Your task to perform on an android device: Open privacy settings Image 0: 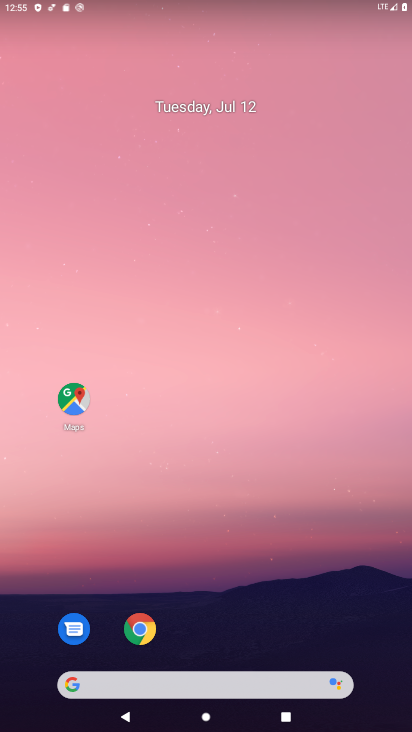
Step 0: drag from (302, 665) to (383, 135)
Your task to perform on an android device: Open privacy settings Image 1: 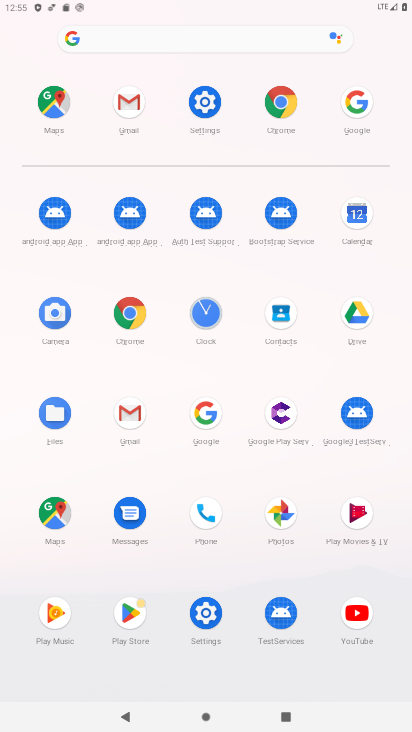
Step 1: click (217, 96)
Your task to perform on an android device: Open privacy settings Image 2: 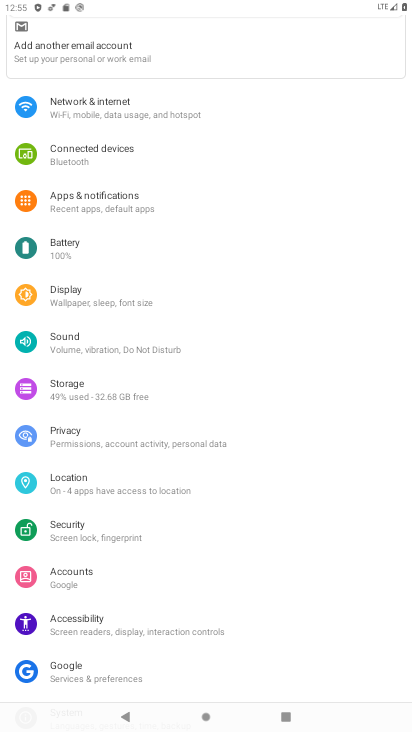
Step 2: click (126, 441)
Your task to perform on an android device: Open privacy settings Image 3: 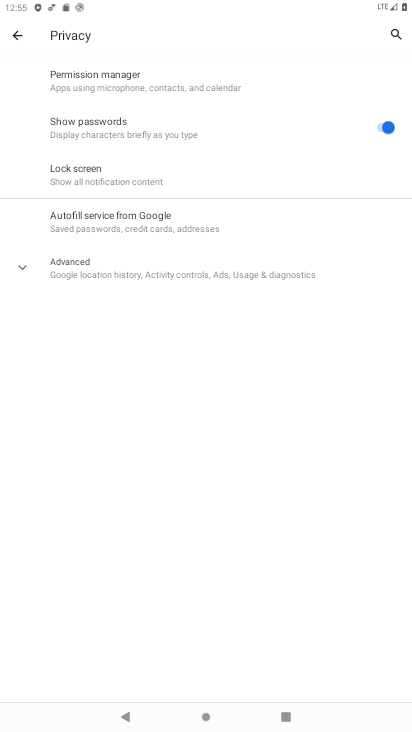
Step 3: task complete